Your task to perform on an android device: change notifications settings Image 0: 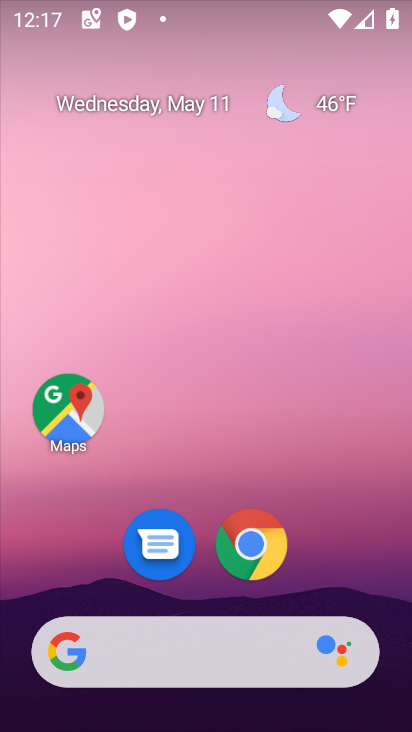
Step 0: drag from (387, 607) to (331, 31)
Your task to perform on an android device: change notifications settings Image 1: 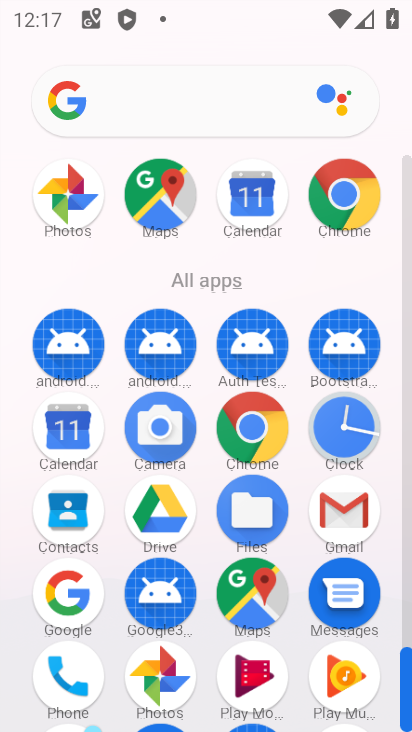
Step 1: click (408, 620)
Your task to perform on an android device: change notifications settings Image 2: 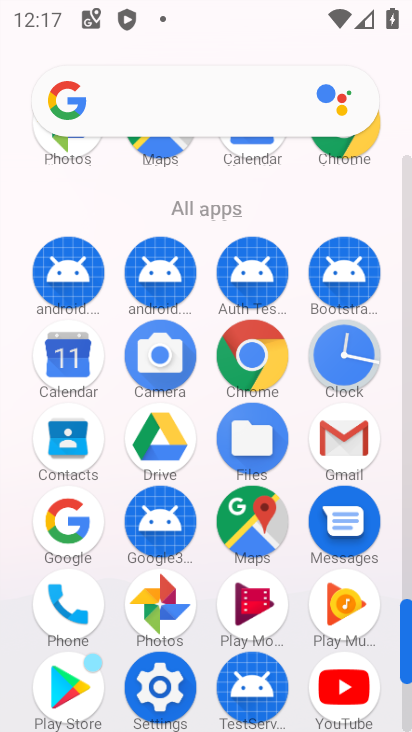
Step 2: click (157, 684)
Your task to perform on an android device: change notifications settings Image 3: 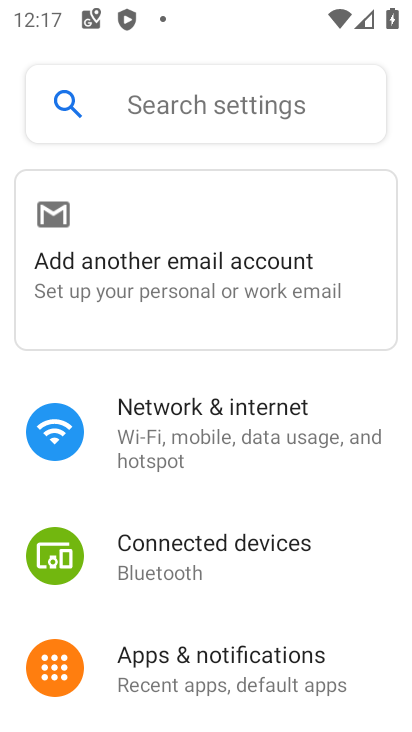
Step 3: click (206, 662)
Your task to perform on an android device: change notifications settings Image 4: 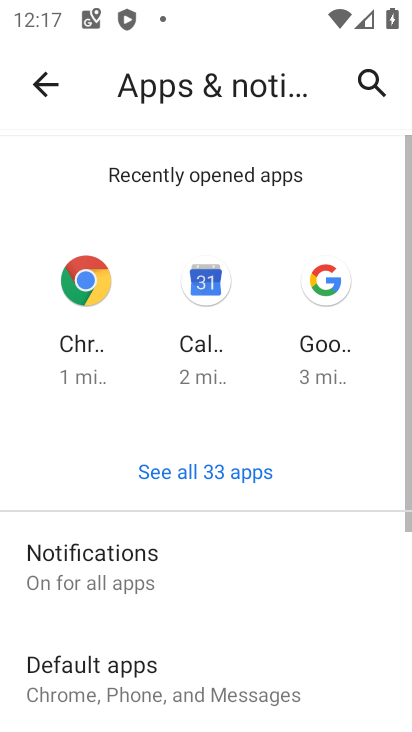
Step 4: drag from (272, 654) to (289, 242)
Your task to perform on an android device: change notifications settings Image 5: 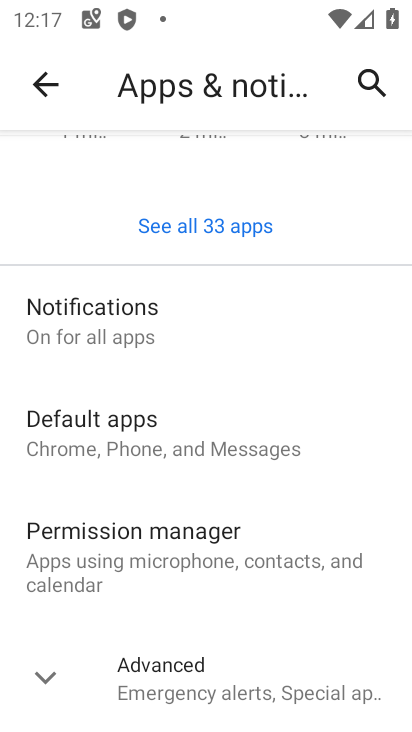
Step 5: click (80, 315)
Your task to perform on an android device: change notifications settings Image 6: 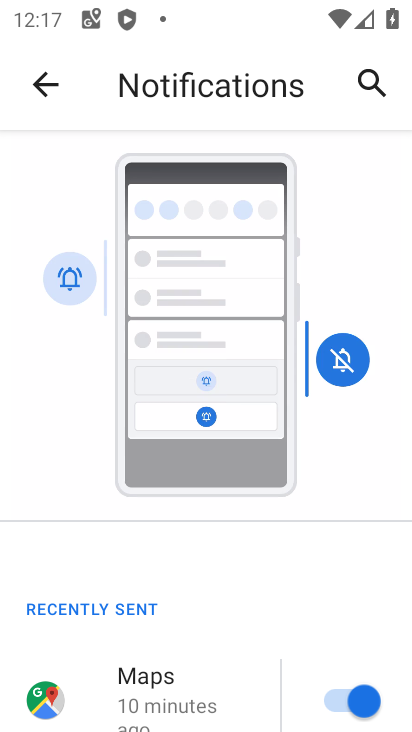
Step 6: drag from (275, 657) to (236, 96)
Your task to perform on an android device: change notifications settings Image 7: 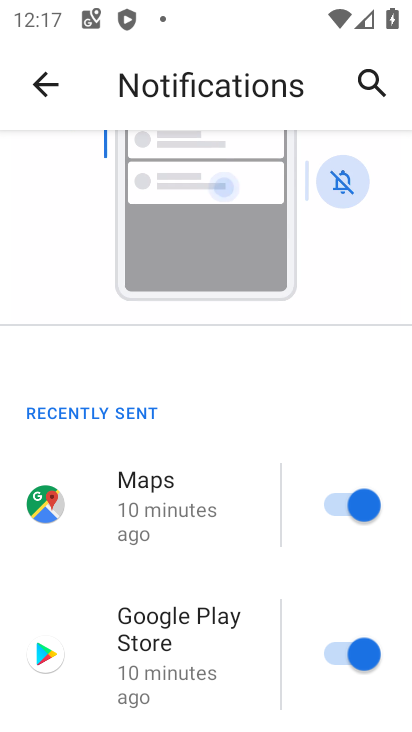
Step 7: drag from (279, 633) to (243, 97)
Your task to perform on an android device: change notifications settings Image 8: 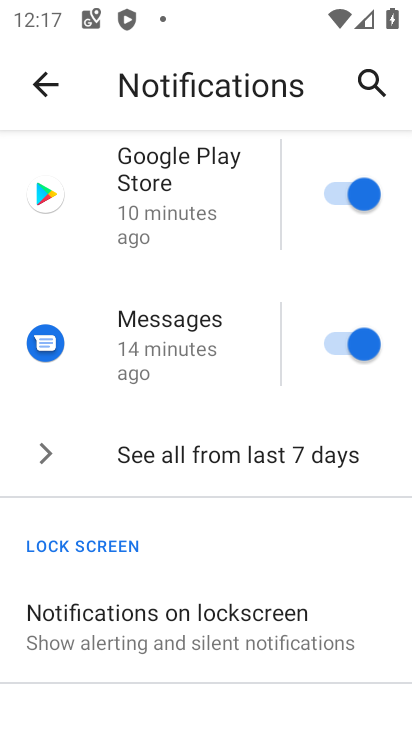
Step 8: drag from (233, 581) to (238, 177)
Your task to perform on an android device: change notifications settings Image 9: 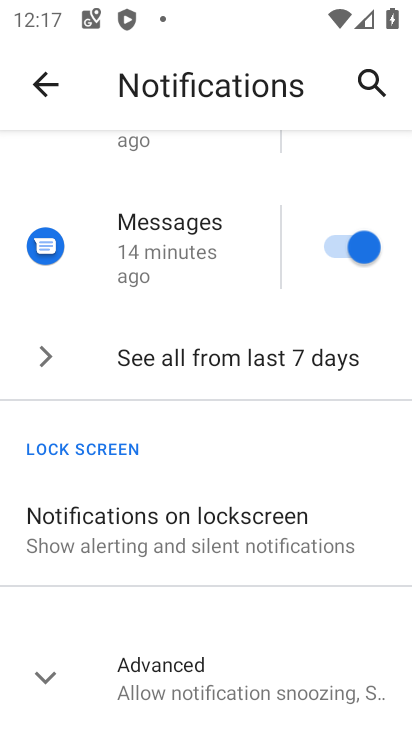
Step 9: click (42, 679)
Your task to perform on an android device: change notifications settings Image 10: 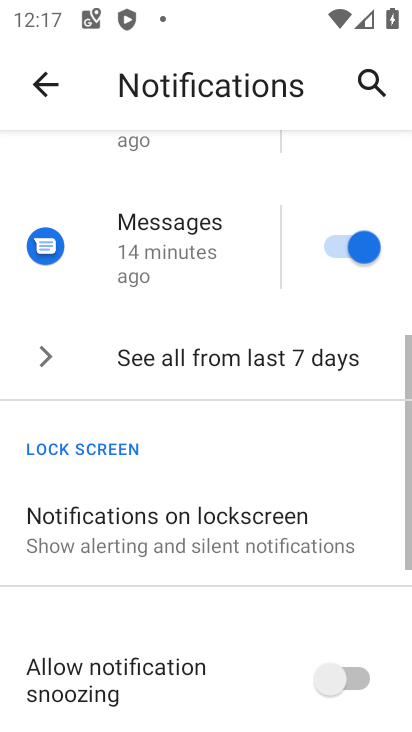
Step 10: task complete